Your task to perform on an android device: see creations saved in the google photos Image 0: 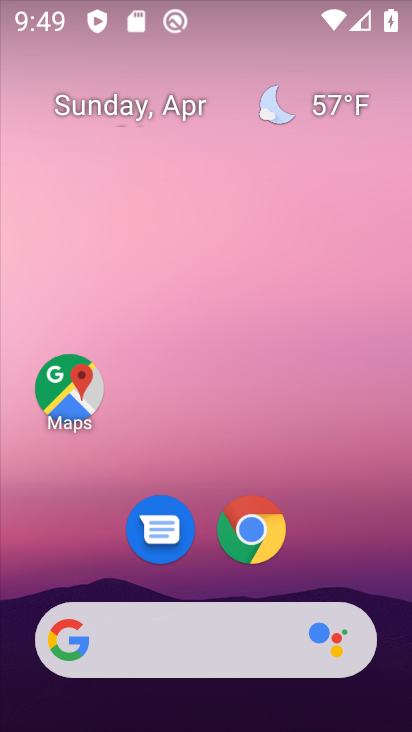
Step 0: drag from (333, 543) to (266, 32)
Your task to perform on an android device: see creations saved in the google photos Image 1: 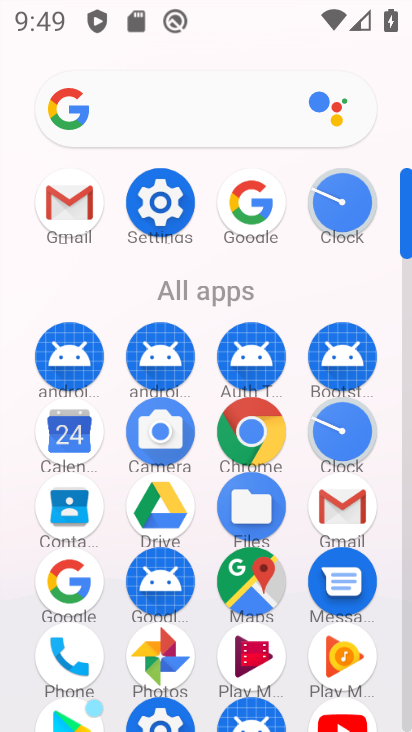
Step 1: click (162, 651)
Your task to perform on an android device: see creations saved in the google photos Image 2: 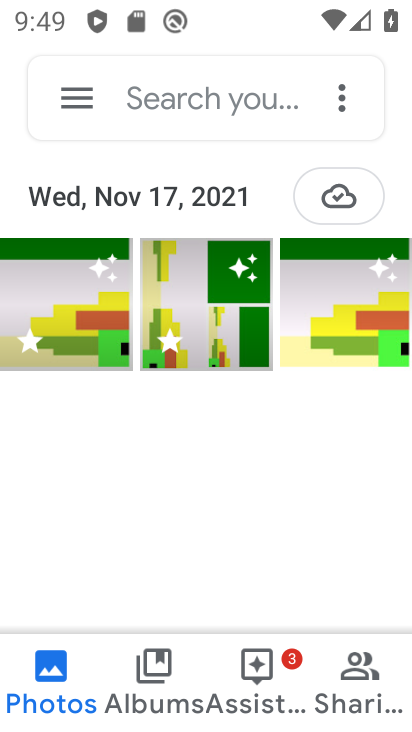
Step 2: click (141, 98)
Your task to perform on an android device: see creations saved in the google photos Image 3: 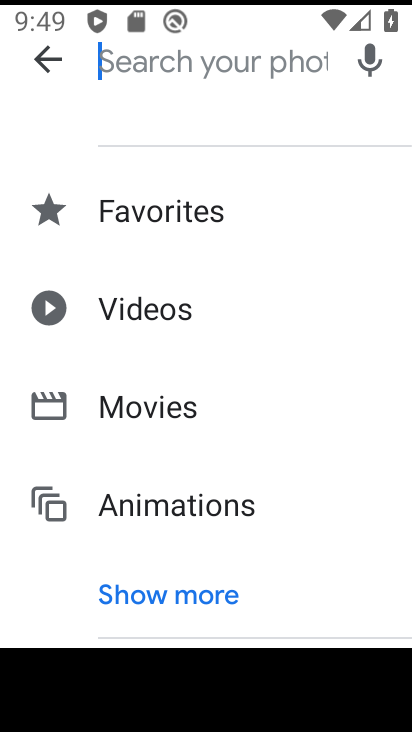
Step 3: type "creations"
Your task to perform on an android device: see creations saved in the google photos Image 4: 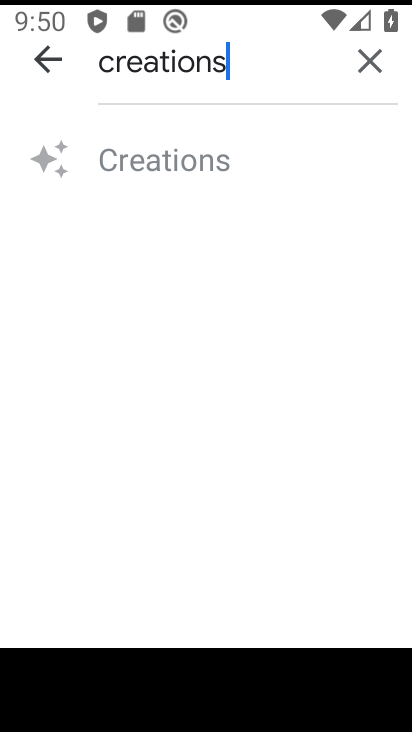
Step 4: click (186, 158)
Your task to perform on an android device: see creations saved in the google photos Image 5: 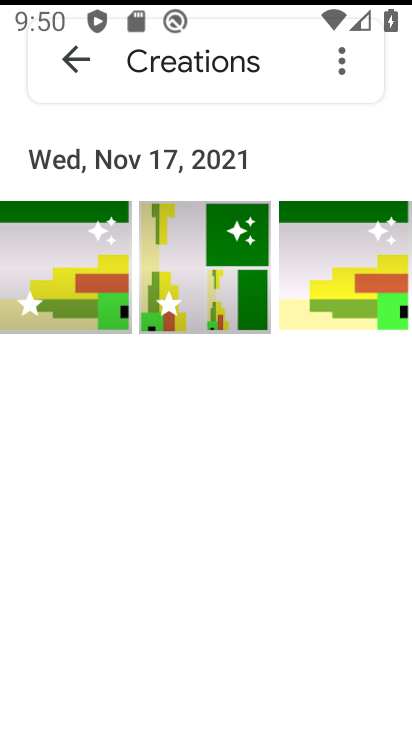
Step 5: task complete